Your task to perform on an android device: What's the latest technology news? Image 0: 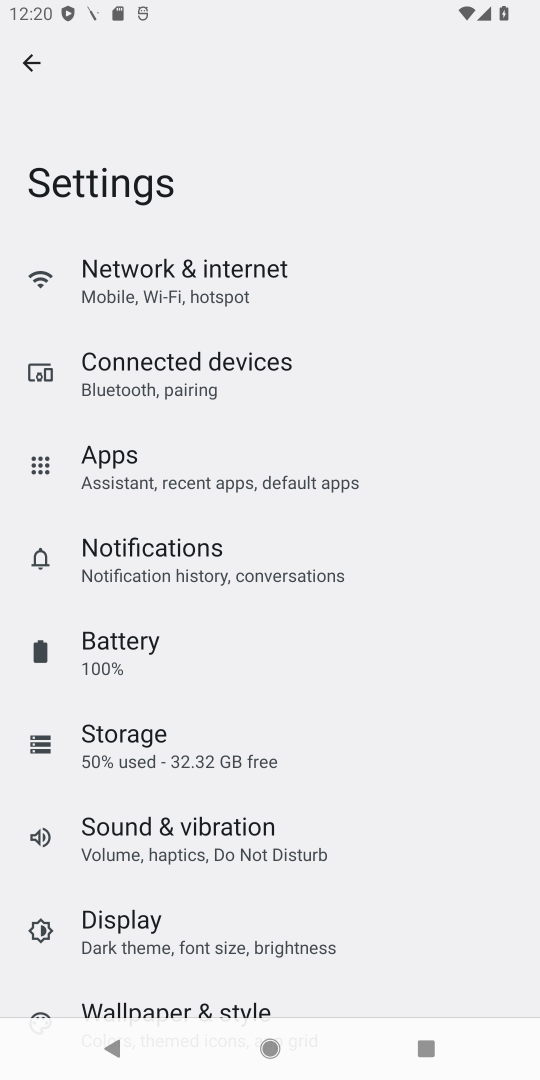
Step 0: press home button
Your task to perform on an android device: What's the latest technology news? Image 1: 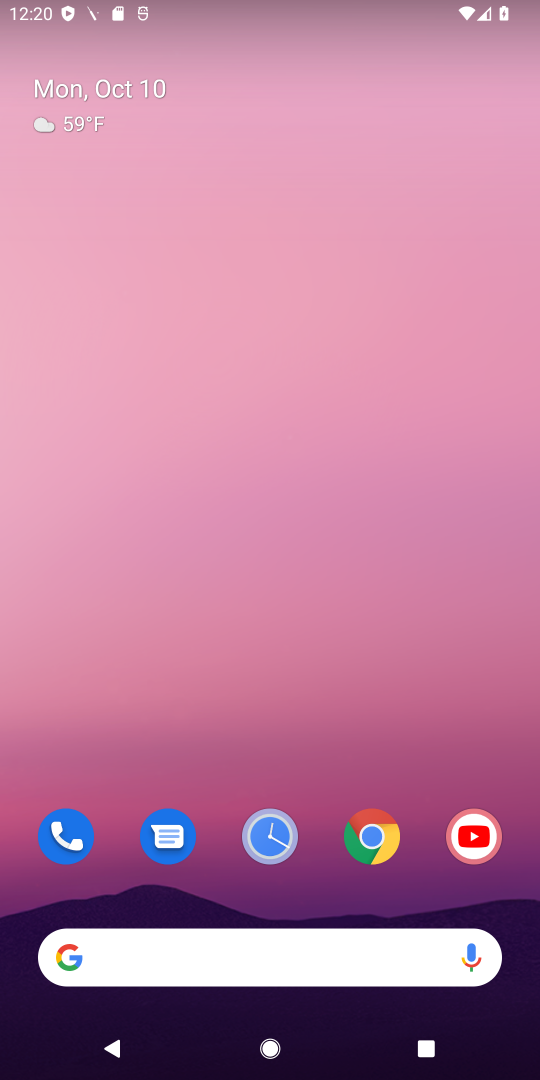
Step 1: click (376, 846)
Your task to perform on an android device: What's the latest technology news? Image 2: 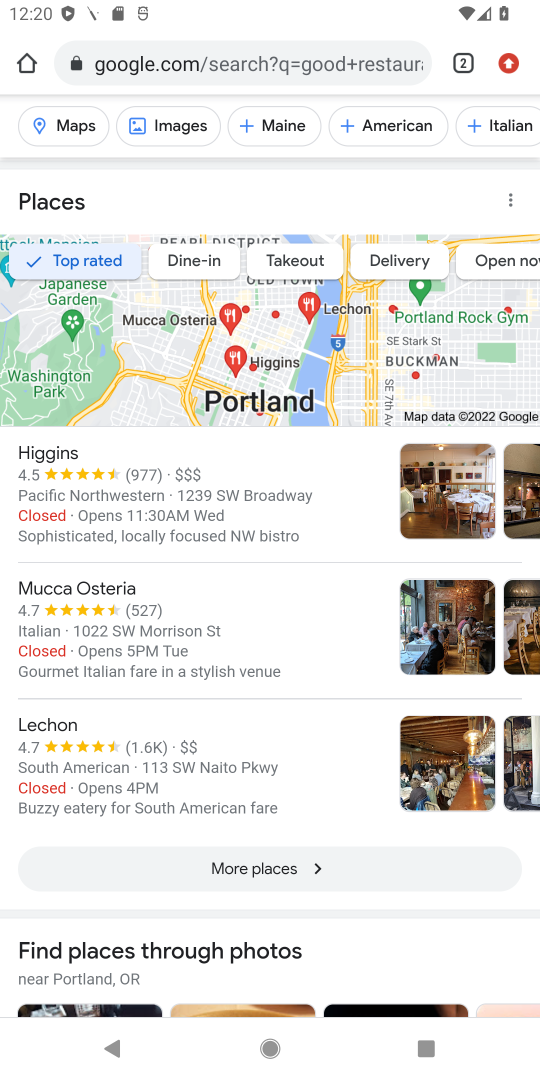
Step 2: click (377, 71)
Your task to perform on an android device: What's the latest technology news? Image 3: 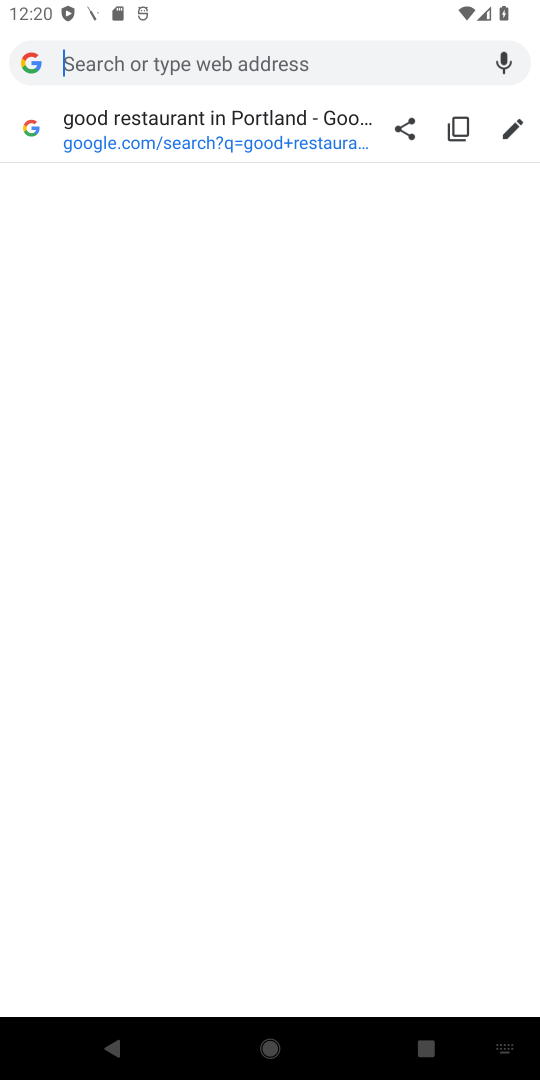
Step 3: type "latest technology news"
Your task to perform on an android device: What's the latest technology news? Image 4: 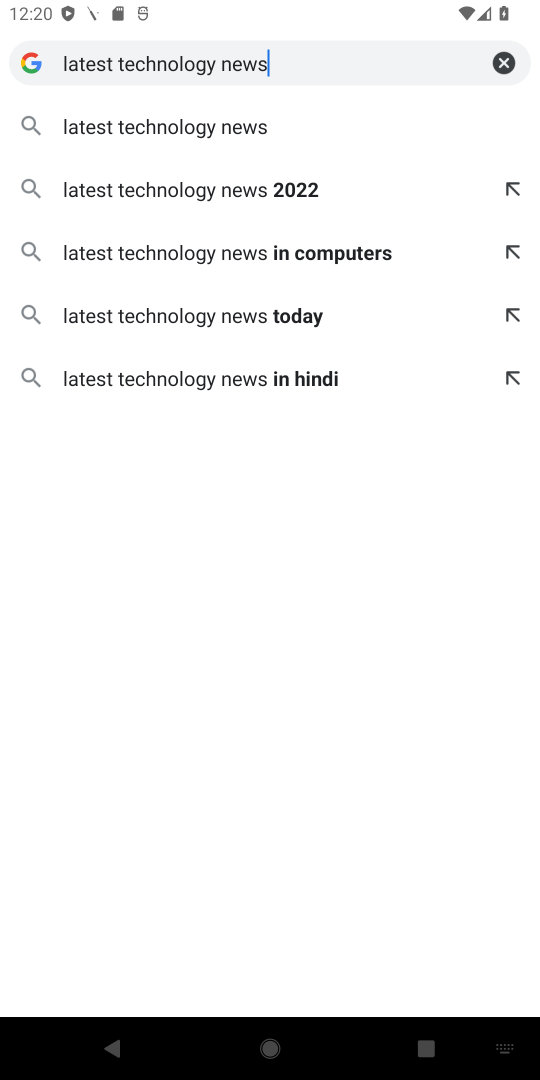
Step 4: click (262, 125)
Your task to perform on an android device: What's the latest technology news? Image 5: 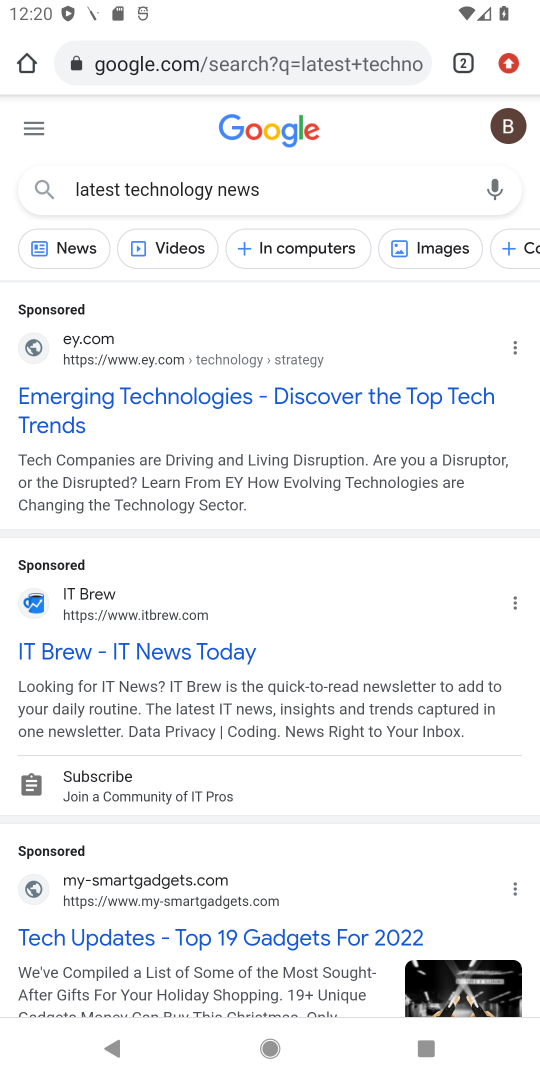
Step 5: click (85, 245)
Your task to perform on an android device: What's the latest technology news? Image 6: 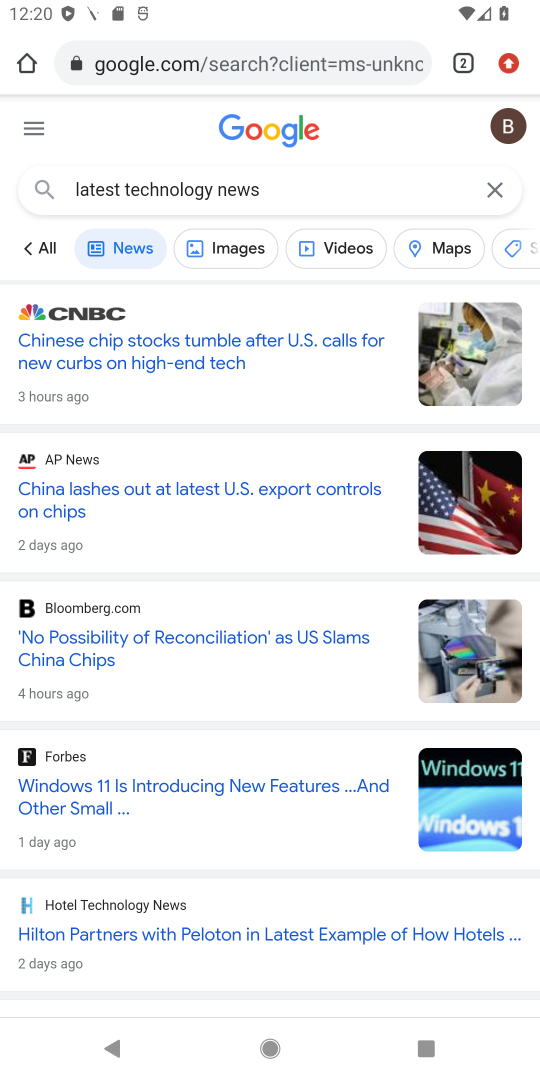
Step 6: task complete